Your task to perform on an android device: Check the news Image 0: 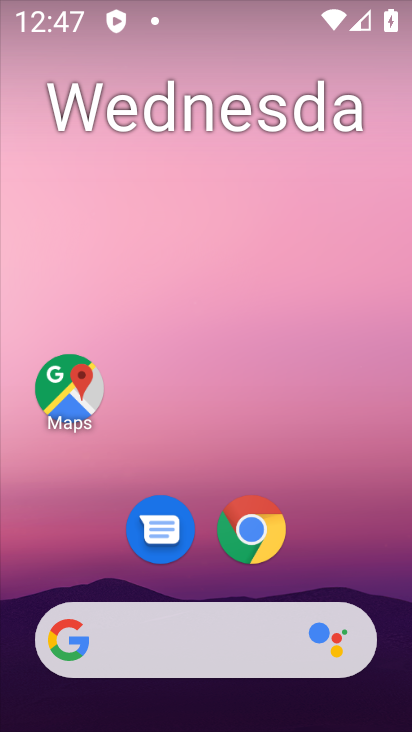
Step 0: drag from (4, 269) to (412, 281)
Your task to perform on an android device: Check the news Image 1: 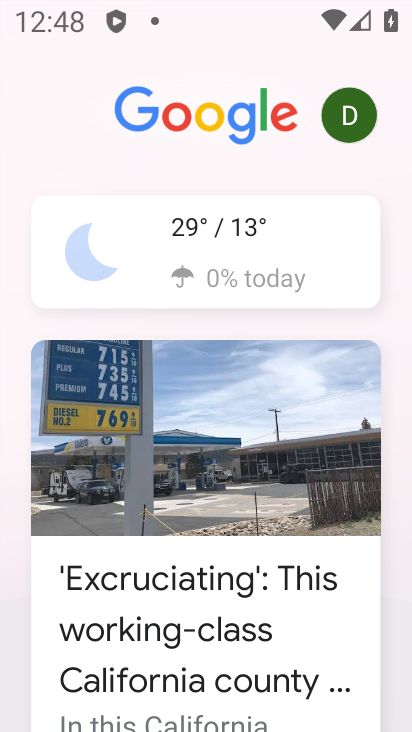
Step 1: task complete